Your task to perform on an android device: Search for the best rated 4K TV on Best Buy. Image 0: 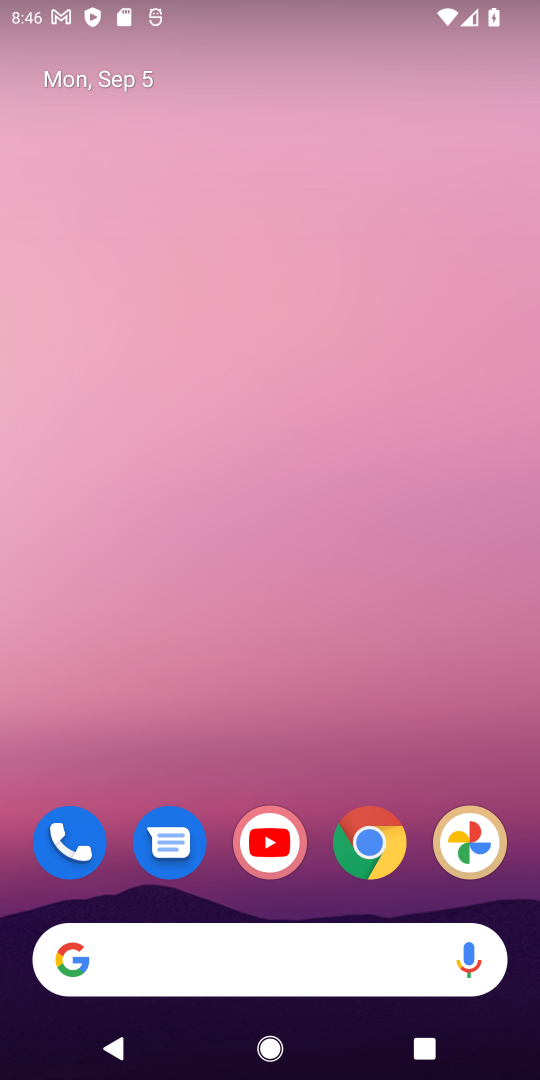
Step 0: drag from (319, 742) to (354, 33)
Your task to perform on an android device: Search for the best rated 4K TV on Best Buy. Image 1: 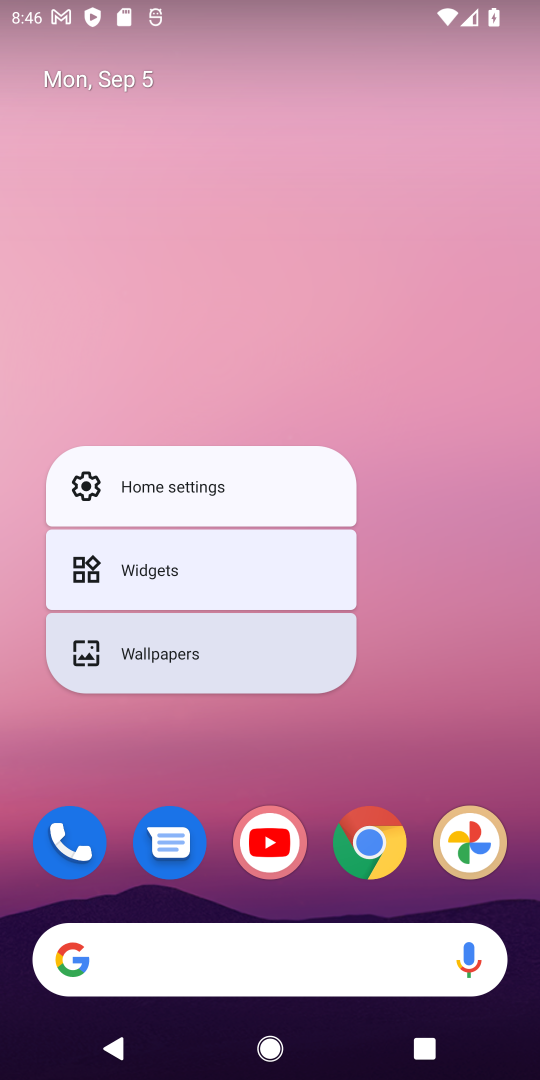
Step 1: click (448, 537)
Your task to perform on an android device: Search for the best rated 4K TV on Best Buy. Image 2: 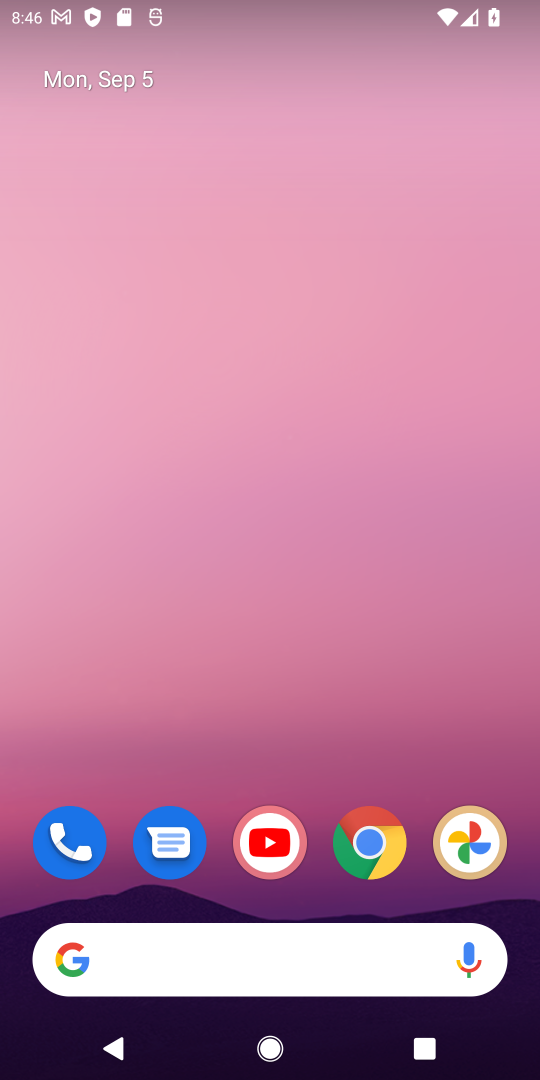
Step 2: drag from (282, 768) to (232, 137)
Your task to perform on an android device: Search for the best rated 4K TV on Best Buy. Image 3: 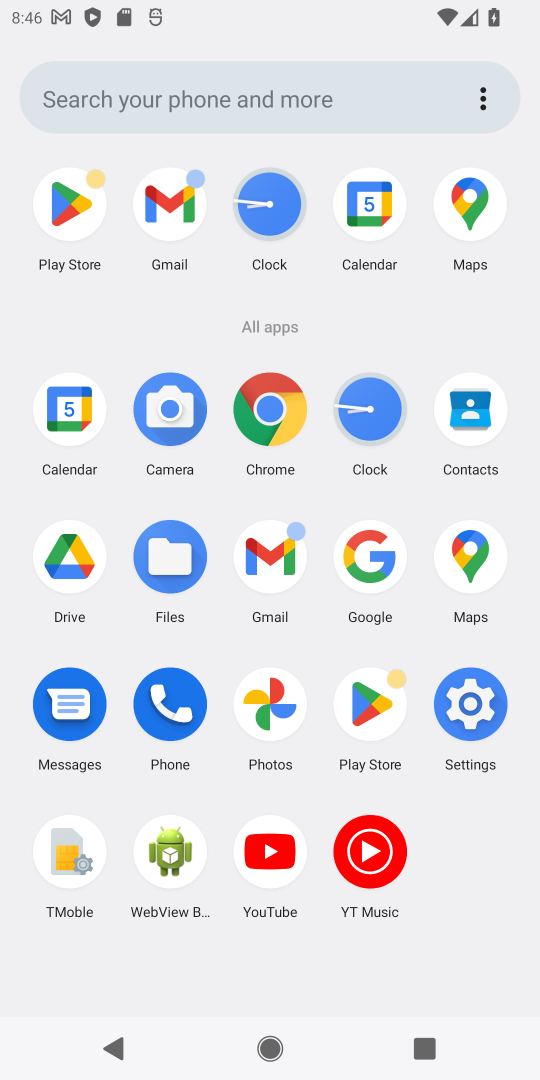
Step 3: click (259, 422)
Your task to perform on an android device: Search for the best rated 4K TV on Best Buy. Image 4: 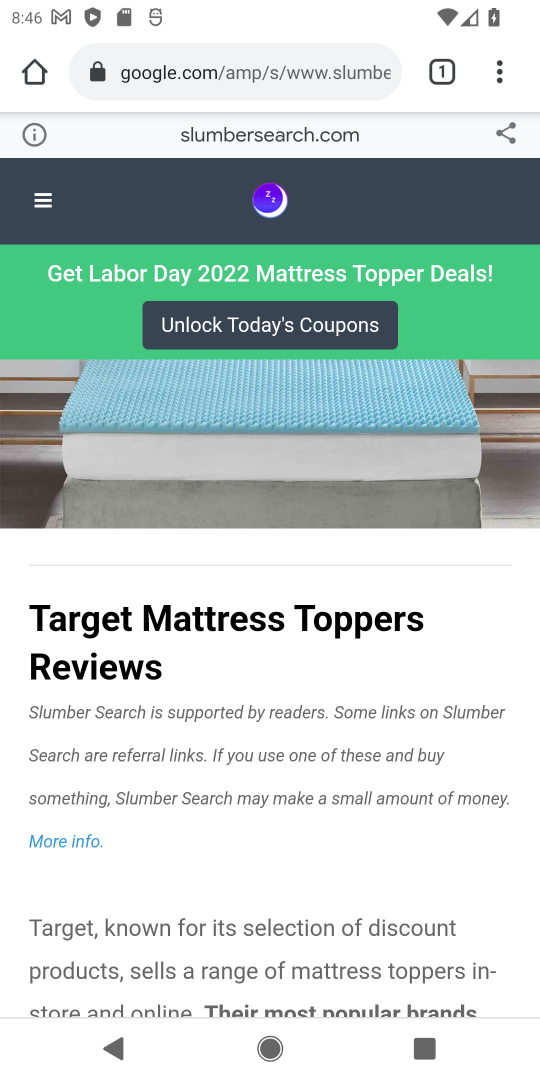
Step 4: click (309, 76)
Your task to perform on an android device: Search for the best rated 4K TV on Best Buy. Image 5: 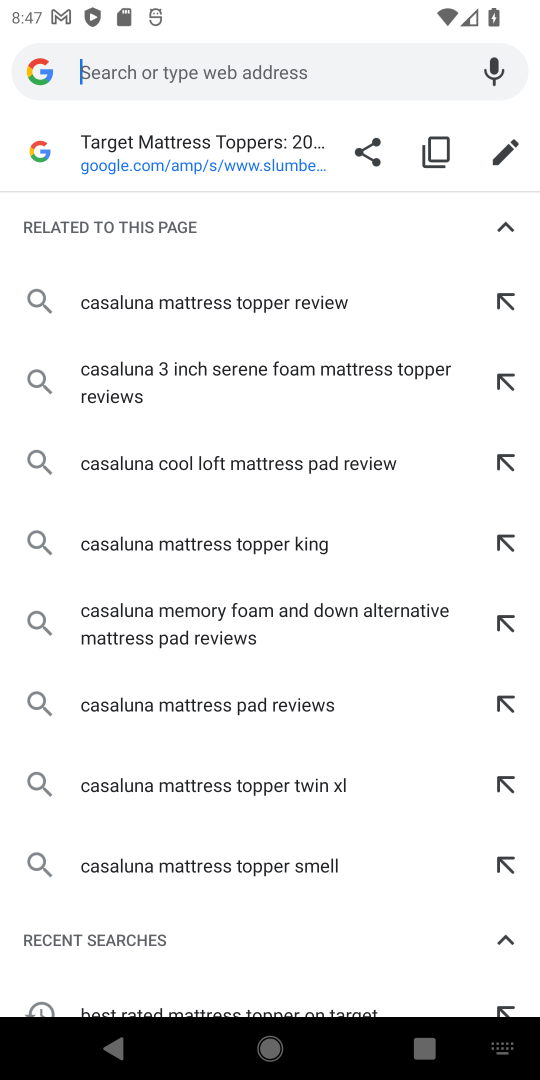
Step 5: type "best rated 4K TV on Best Buy"
Your task to perform on an android device: Search for the best rated 4K TV on Best Buy. Image 6: 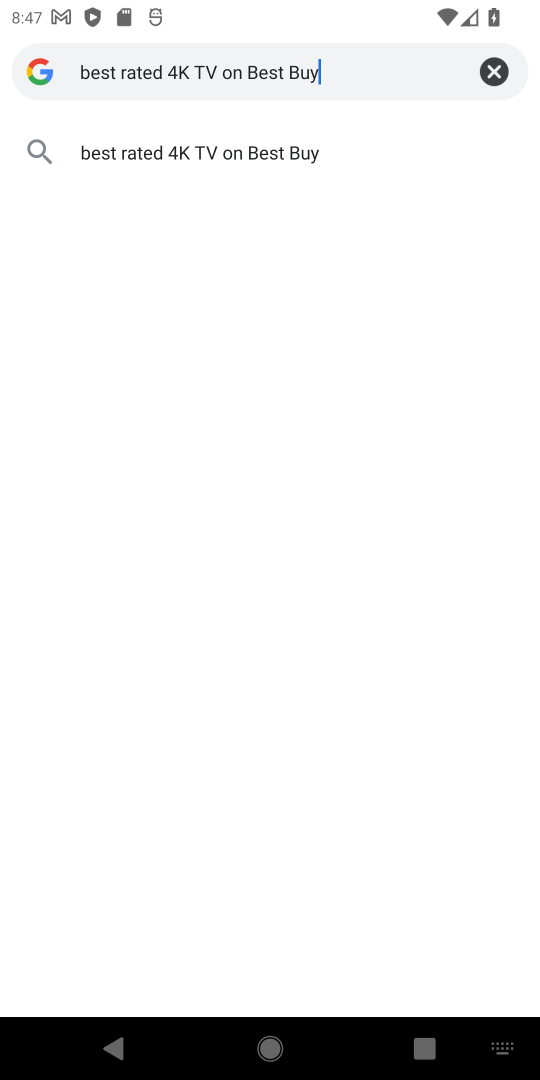
Step 6: press enter
Your task to perform on an android device: Search for the best rated 4K TV on Best Buy. Image 7: 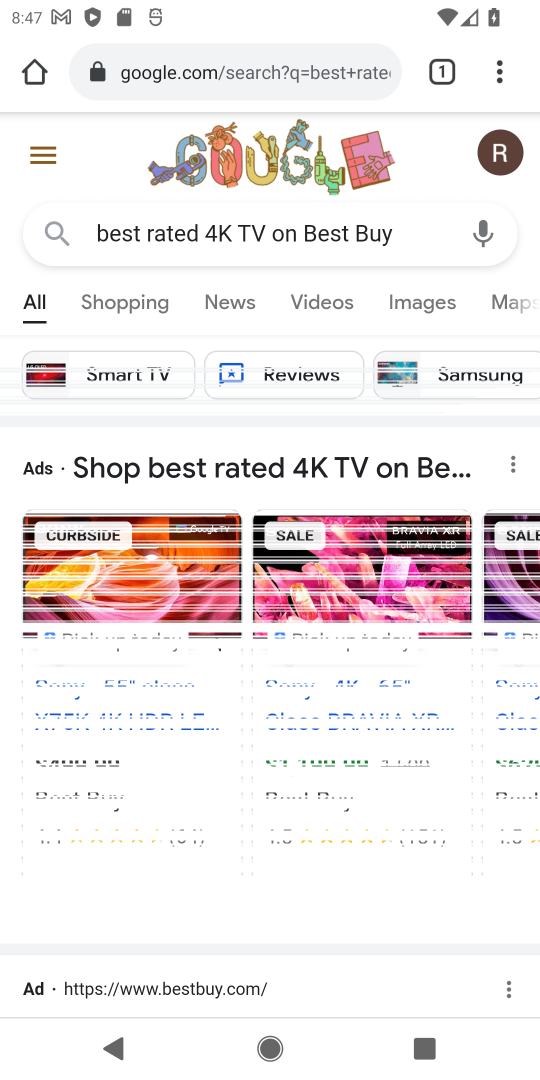
Step 7: click (284, 211)
Your task to perform on an android device: Search for the best rated 4K TV on Best Buy. Image 8: 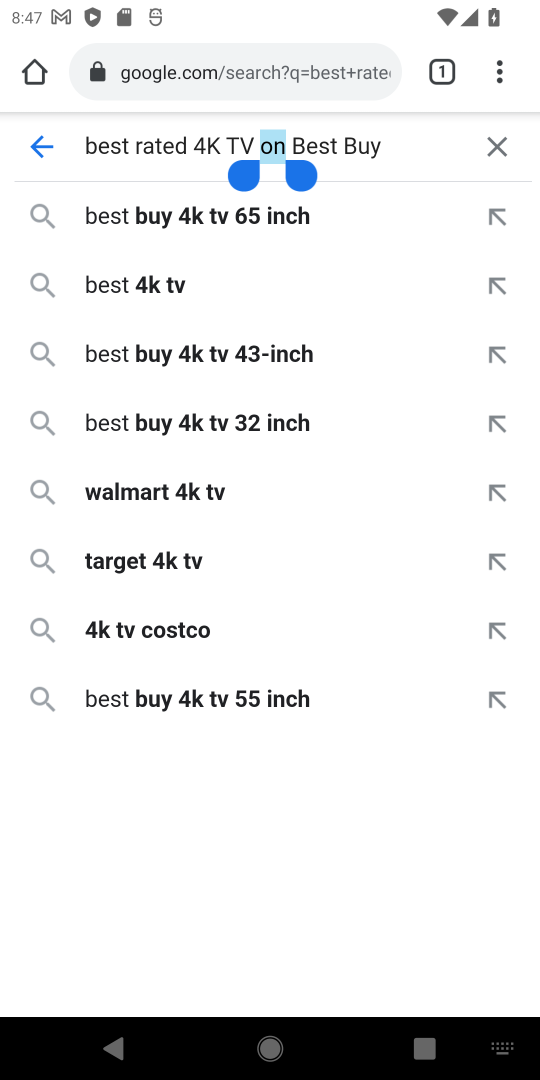
Step 8: click (426, 137)
Your task to perform on an android device: Search for the best rated 4K TV on Best Buy. Image 9: 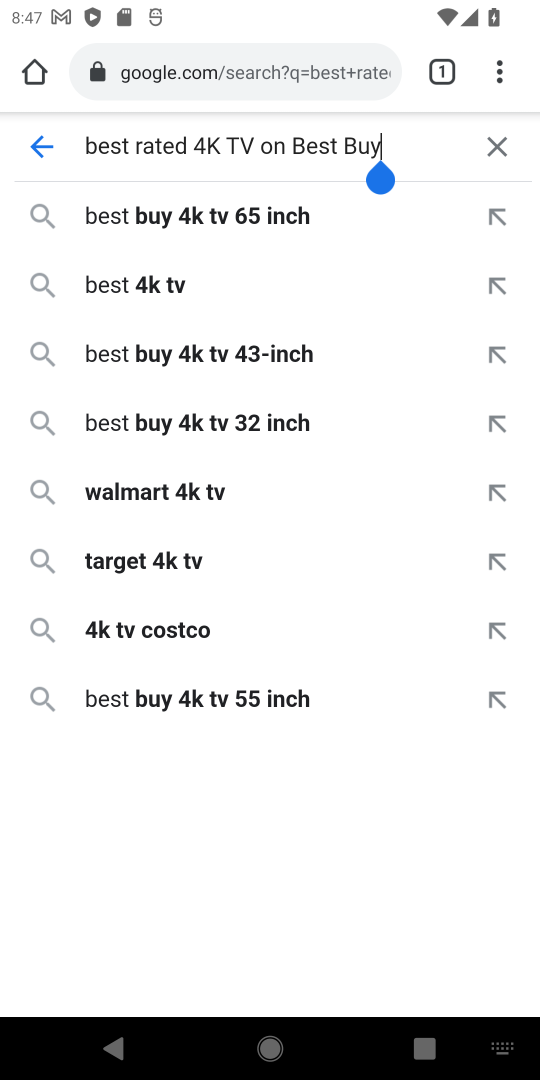
Step 9: press enter
Your task to perform on an android device: Search for the best rated 4K TV on Best Buy. Image 10: 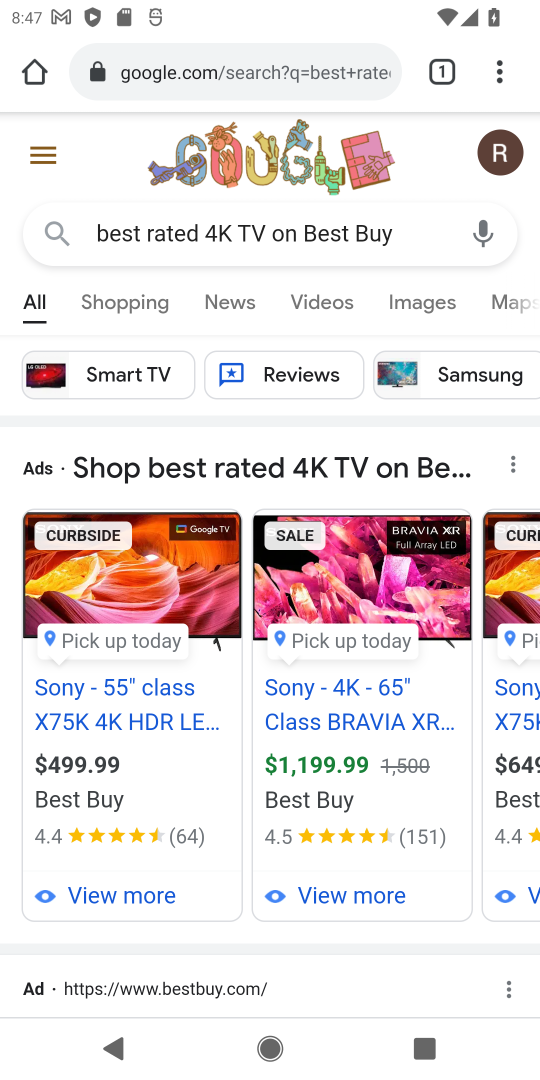
Step 10: drag from (211, 583) to (180, 418)
Your task to perform on an android device: Search for the best rated 4K TV on Best Buy. Image 11: 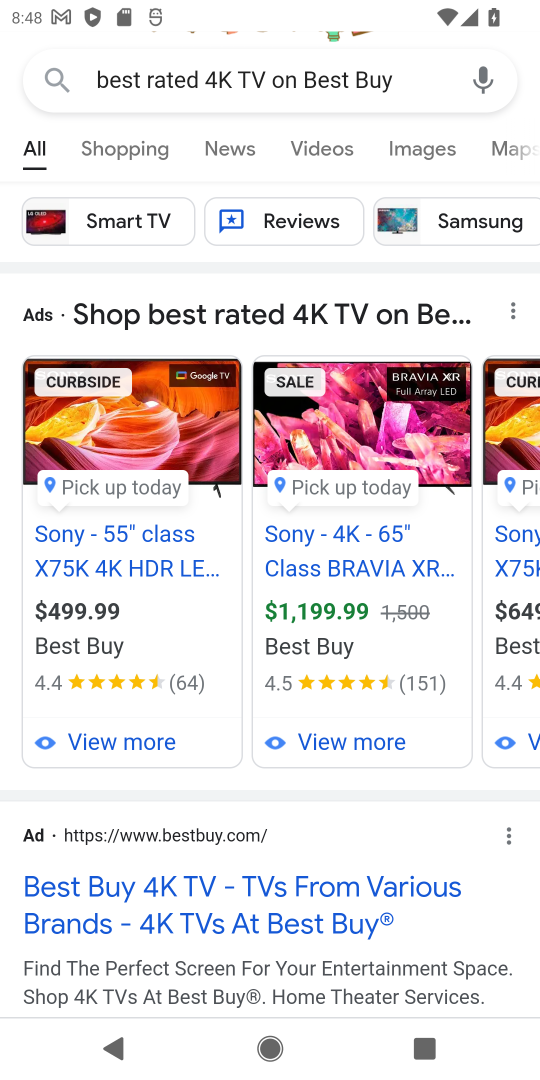
Step 11: drag from (305, 857) to (207, 485)
Your task to perform on an android device: Search for the best rated 4K TV on Best Buy. Image 12: 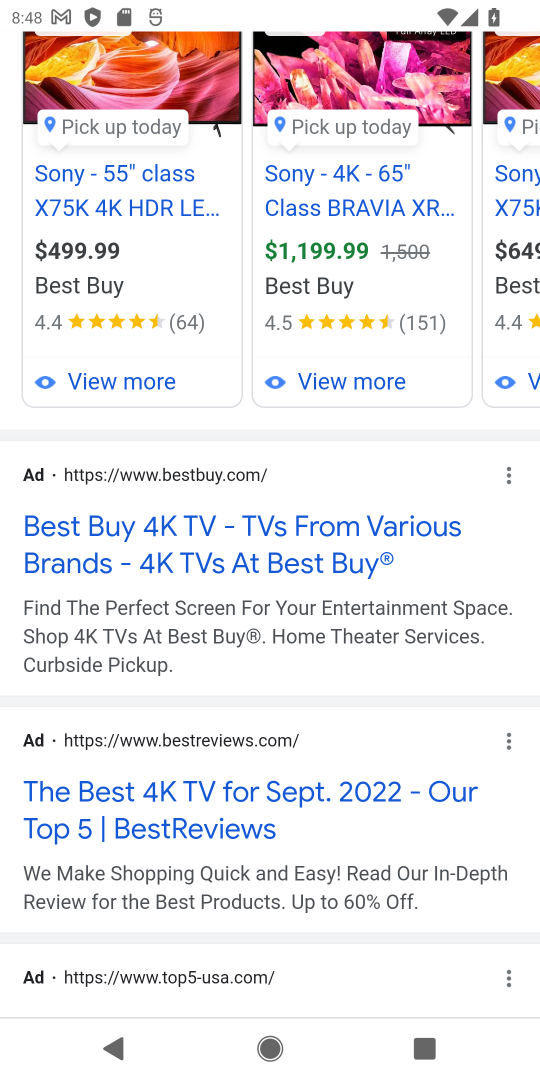
Step 12: drag from (402, 653) to (428, 407)
Your task to perform on an android device: Search for the best rated 4K TV on Best Buy. Image 13: 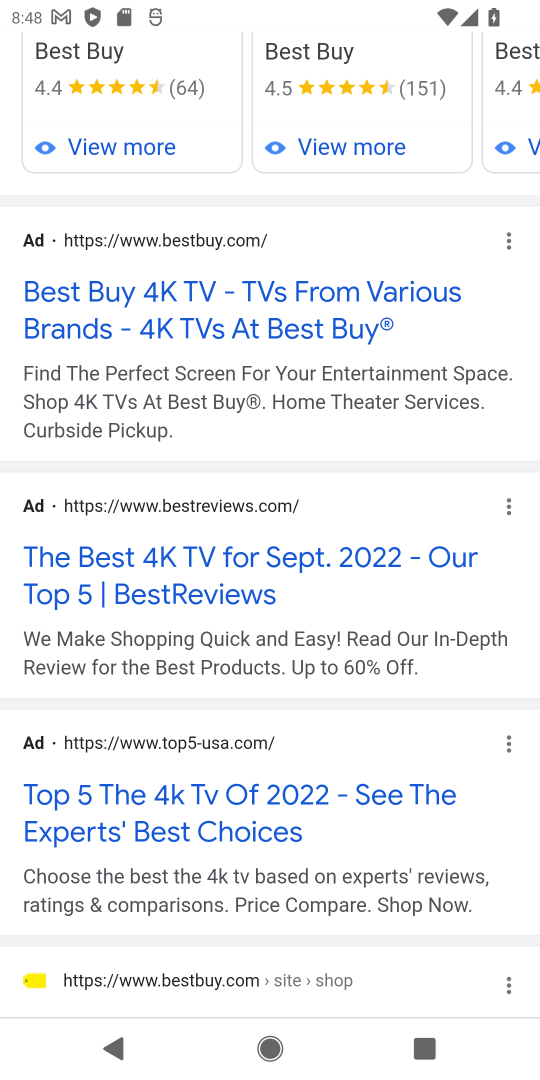
Step 13: drag from (446, 566) to (413, 130)
Your task to perform on an android device: Search for the best rated 4K TV on Best Buy. Image 14: 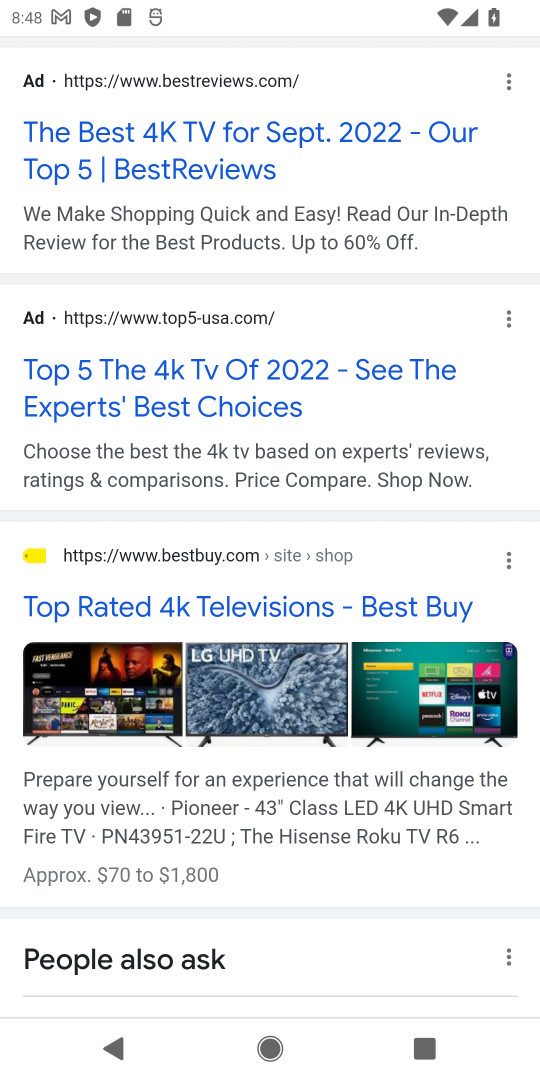
Step 14: click (338, 602)
Your task to perform on an android device: Search for the best rated 4K TV on Best Buy. Image 15: 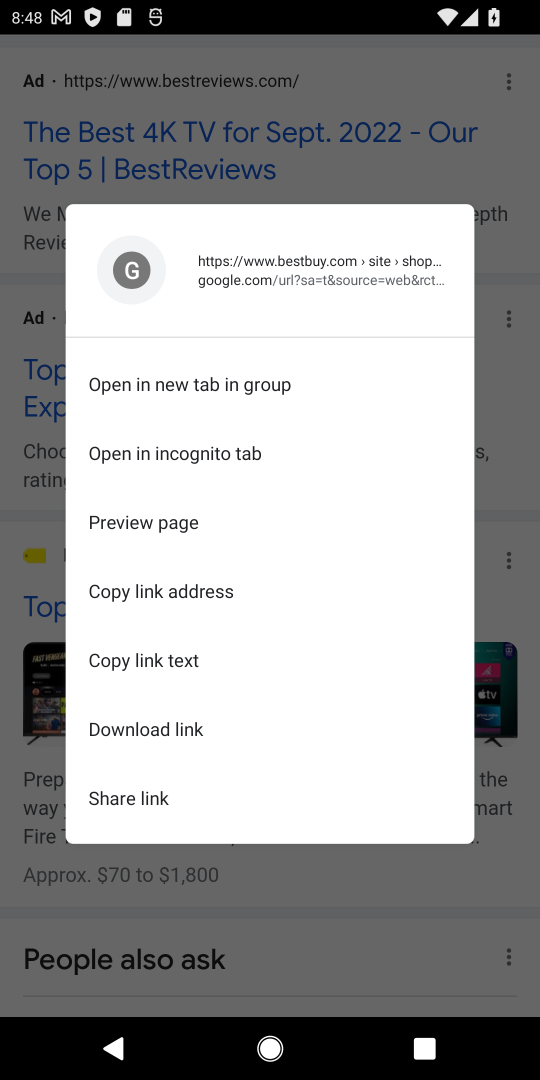
Step 15: click (303, 871)
Your task to perform on an android device: Search for the best rated 4K TV on Best Buy. Image 16: 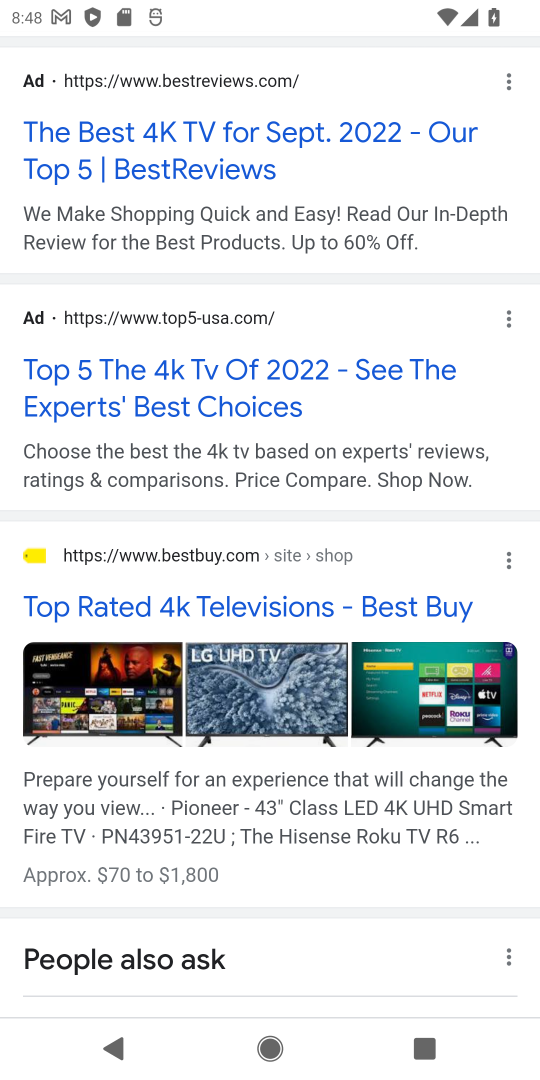
Step 16: click (280, 609)
Your task to perform on an android device: Search for the best rated 4K TV on Best Buy. Image 17: 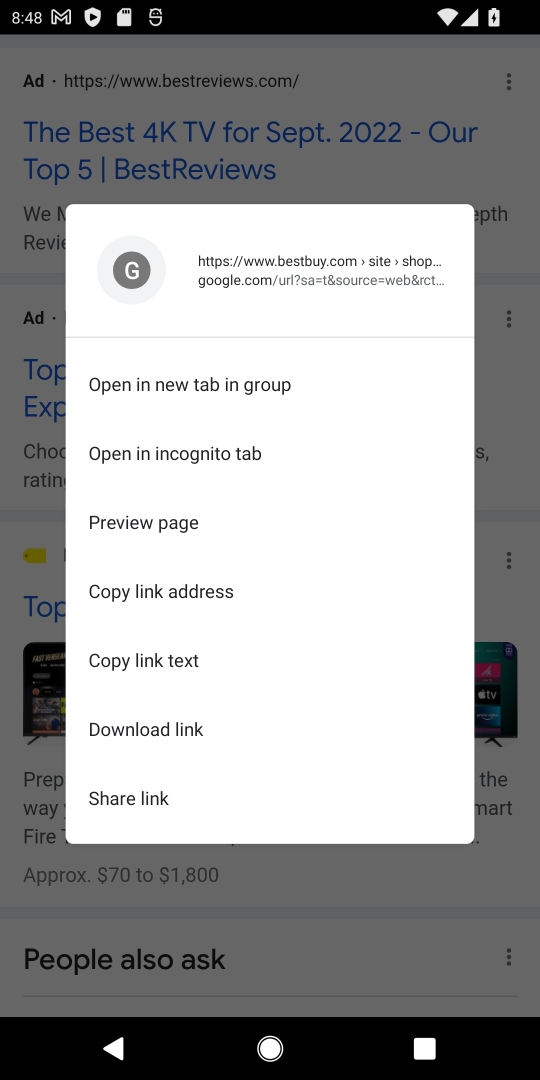
Step 17: click (338, 872)
Your task to perform on an android device: Search for the best rated 4K TV on Best Buy. Image 18: 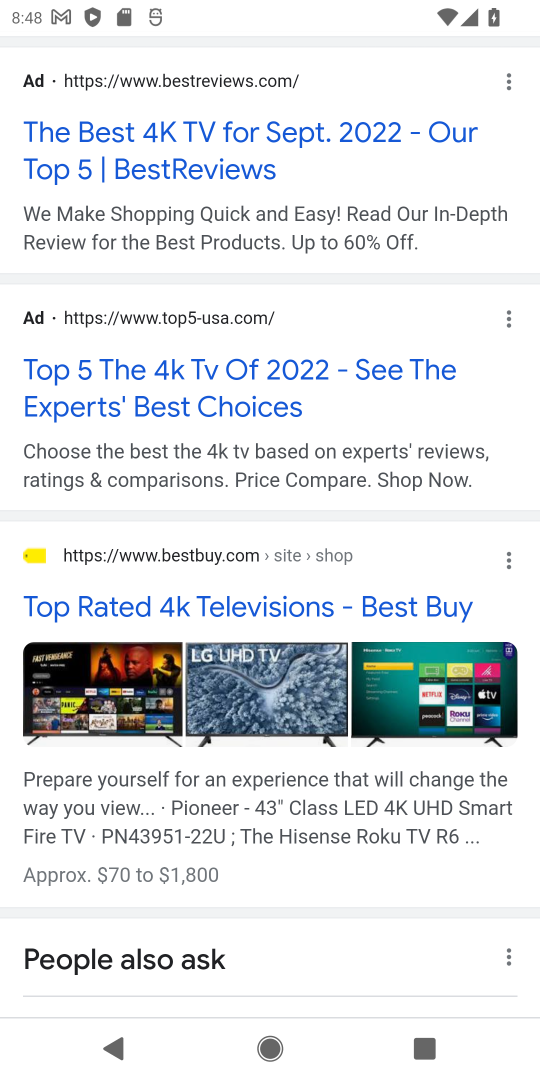
Step 18: click (156, 599)
Your task to perform on an android device: Search for the best rated 4K TV on Best Buy. Image 19: 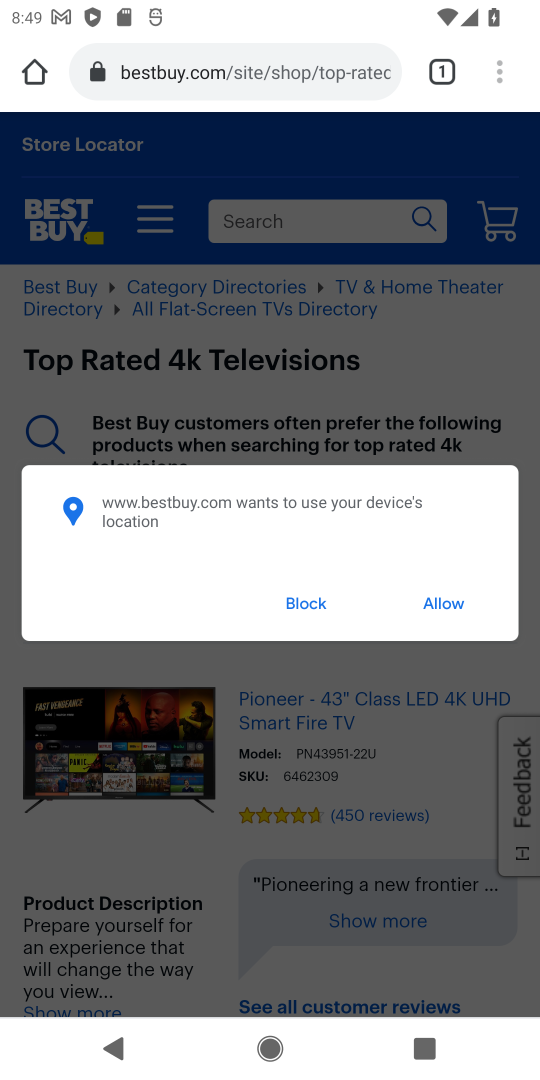
Step 19: task complete